Your task to perform on an android device: Open Yahoo.com Image 0: 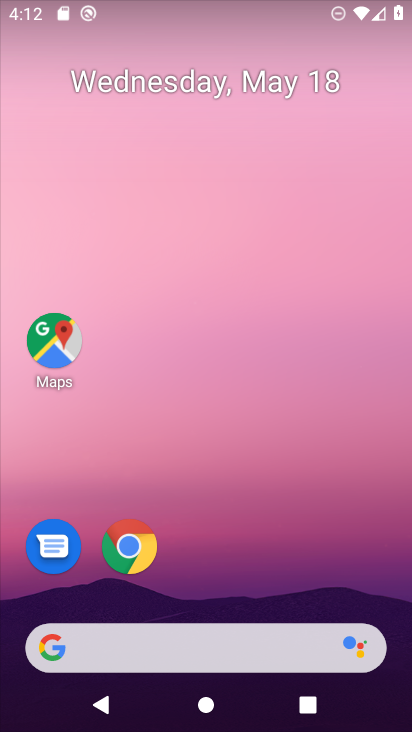
Step 0: click (142, 547)
Your task to perform on an android device: Open Yahoo.com Image 1: 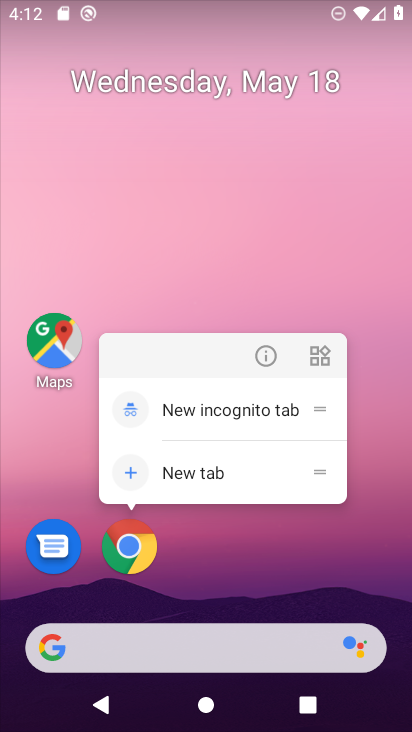
Step 1: click (139, 550)
Your task to perform on an android device: Open Yahoo.com Image 2: 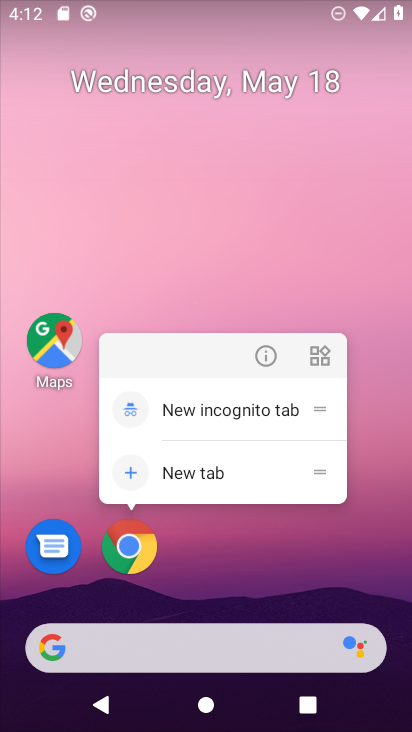
Step 2: click (142, 551)
Your task to perform on an android device: Open Yahoo.com Image 3: 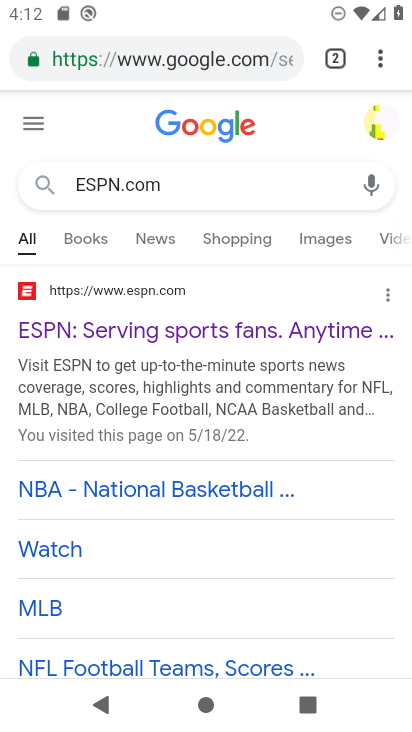
Step 3: click (214, 55)
Your task to perform on an android device: Open Yahoo.com Image 4: 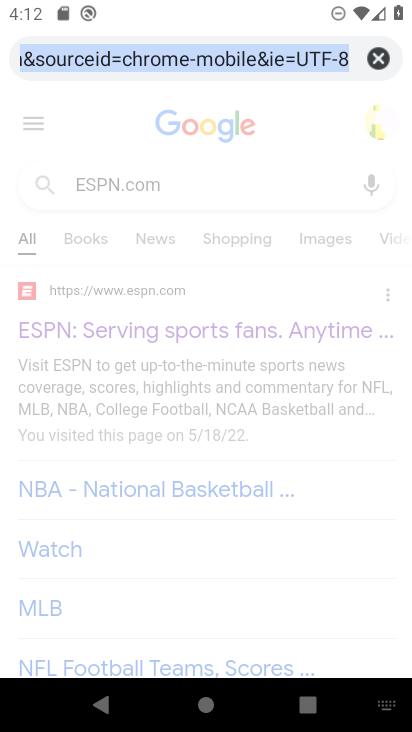
Step 4: type "yahoo.com"
Your task to perform on an android device: Open Yahoo.com Image 5: 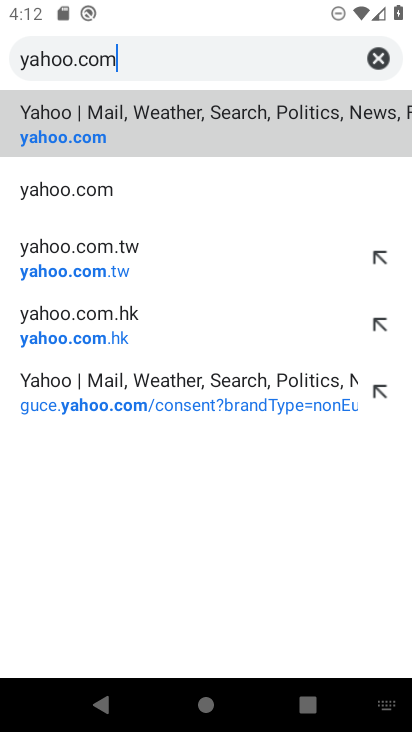
Step 5: click (191, 185)
Your task to perform on an android device: Open Yahoo.com Image 6: 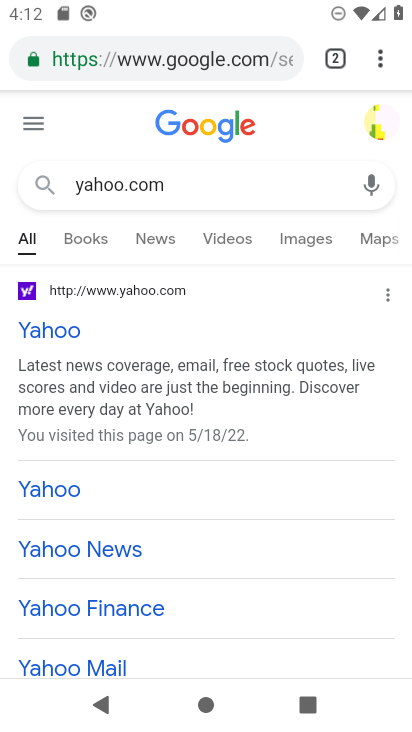
Step 6: task complete